Your task to perform on an android device: open sync settings in chrome Image 0: 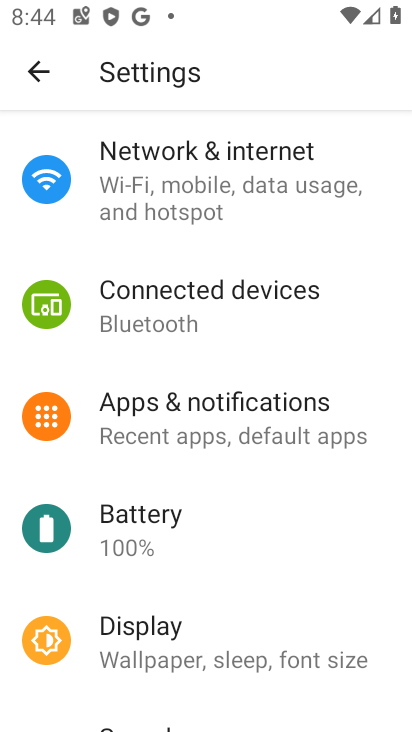
Step 0: press home button
Your task to perform on an android device: open sync settings in chrome Image 1: 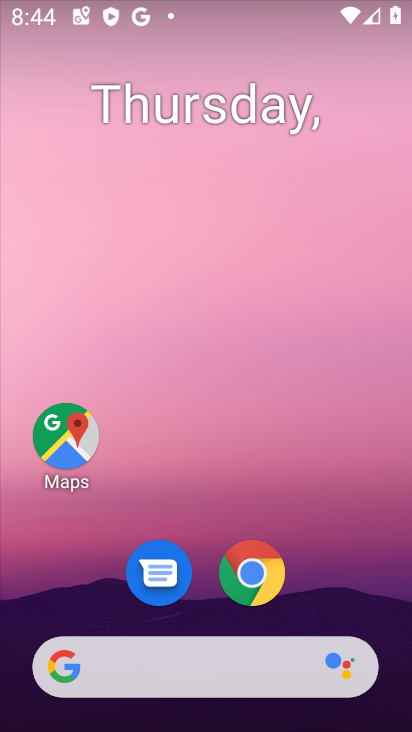
Step 1: drag from (346, 587) to (325, 144)
Your task to perform on an android device: open sync settings in chrome Image 2: 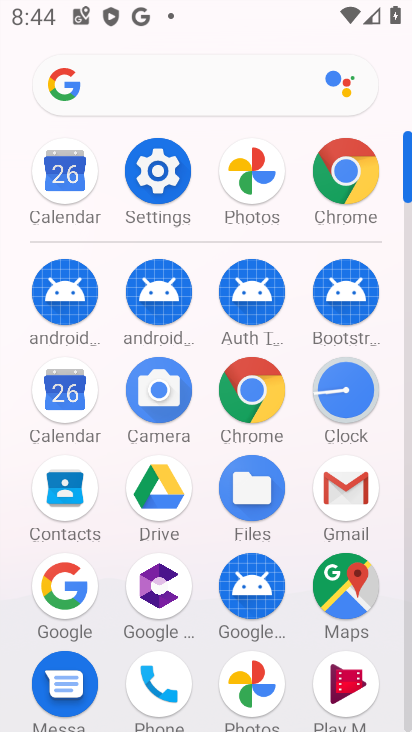
Step 2: click (260, 393)
Your task to perform on an android device: open sync settings in chrome Image 3: 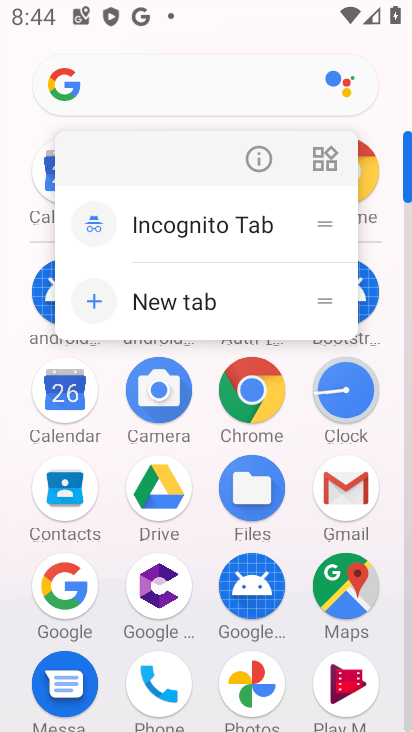
Step 3: click (261, 400)
Your task to perform on an android device: open sync settings in chrome Image 4: 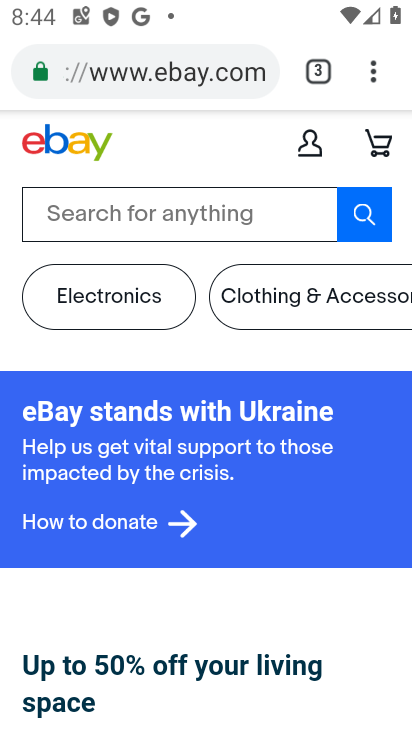
Step 4: drag from (373, 88) to (191, 570)
Your task to perform on an android device: open sync settings in chrome Image 5: 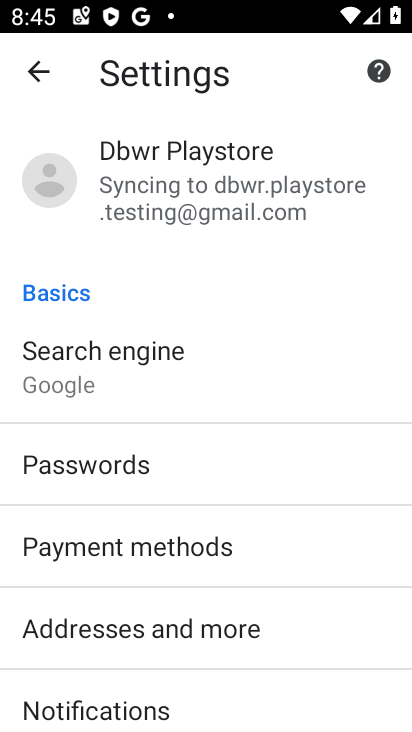
Step 5: drag from (217, 637) to (262, 319)
Your task to perform on an android device: open sync settings in chrome Image 6: 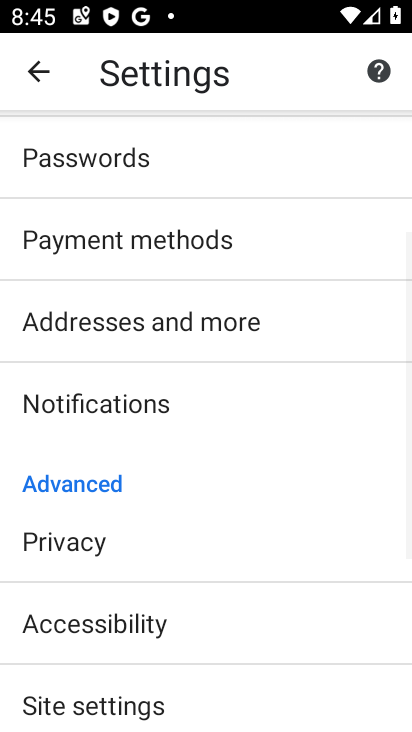
Step 6: drag from (260, 657) to (243, 280)
Your task to perform on an android device: open sync settings in chrome Image 7: 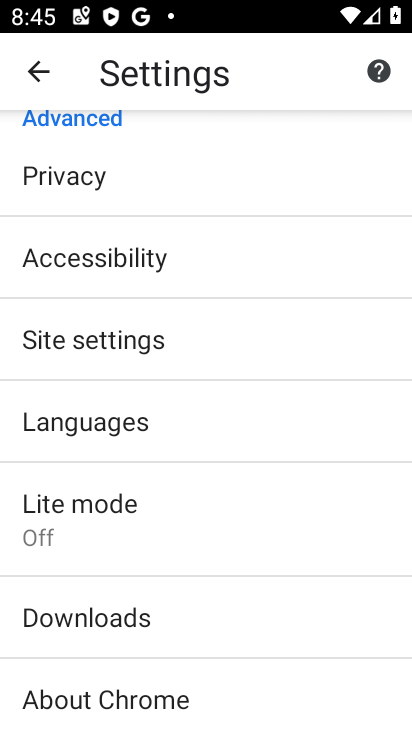
Step 7: drag from (222, 627) to (251, 322)
Your task to perform on an android device: open sync settings in chrome Image 8: 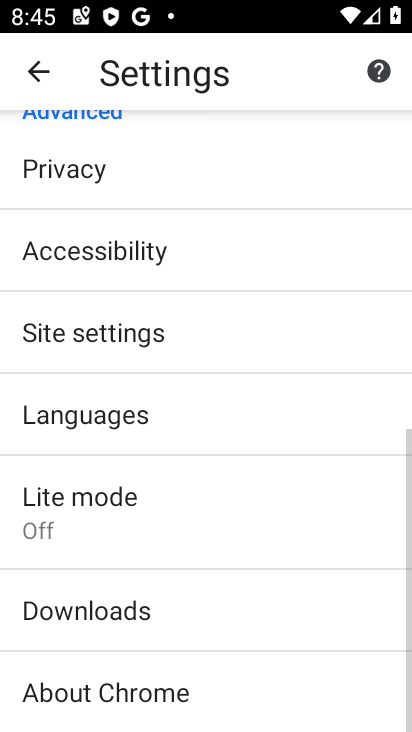
Step 8: click (133, 334)
Your task to perform on an android device: open sync settings in chrome Image 9: 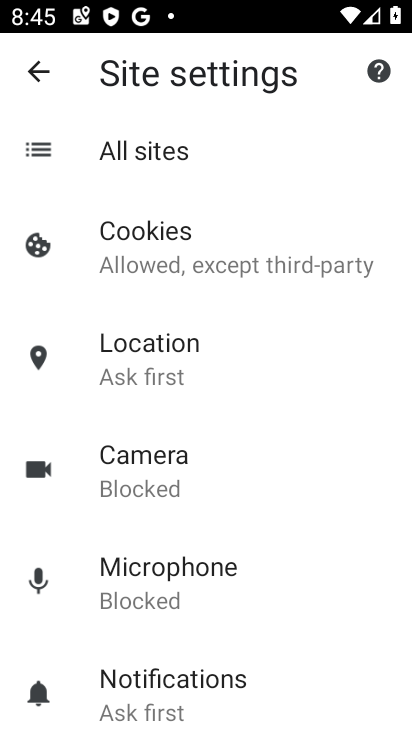
Step 9: drag from (218, 577) to (218, 225)
Your task to perform on an android device: open sync settings in chrome Image 10: 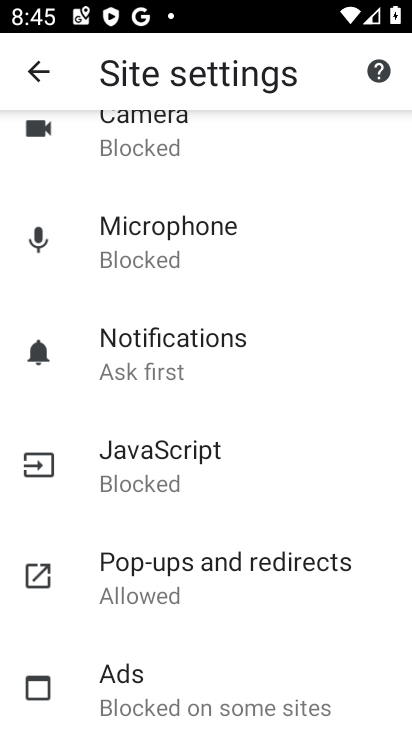
Step 10: drag from (226, 561) to (226, 264)
Your task to perform on an android device: open sync settings in chrome Image 11: 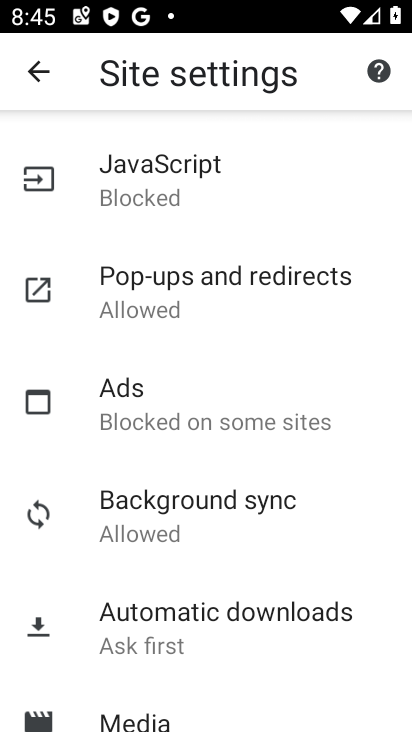
Step 11: click (209, 532)
Your task to perform on an android device: open sync settings in chrome Image 12: 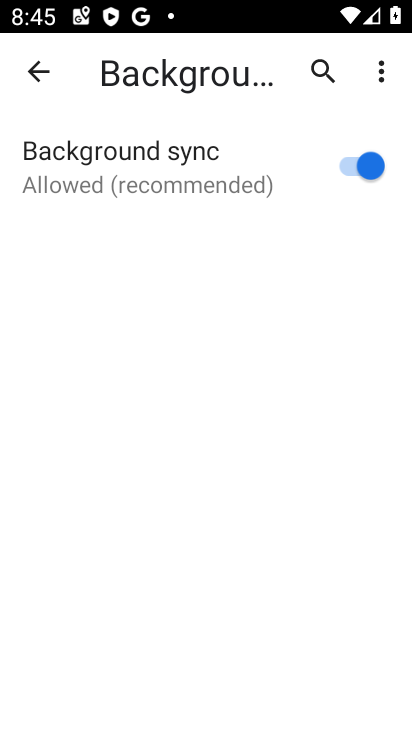
Step 12: task complete